Your task to perform on an android device: open sync settings in chrome Image 0: 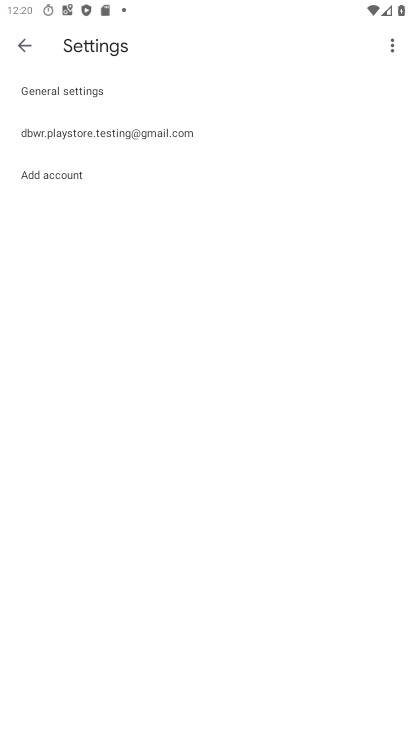
Step 0: press home button
Your task to perform on an android device: open sync settings in chrome Image 1: 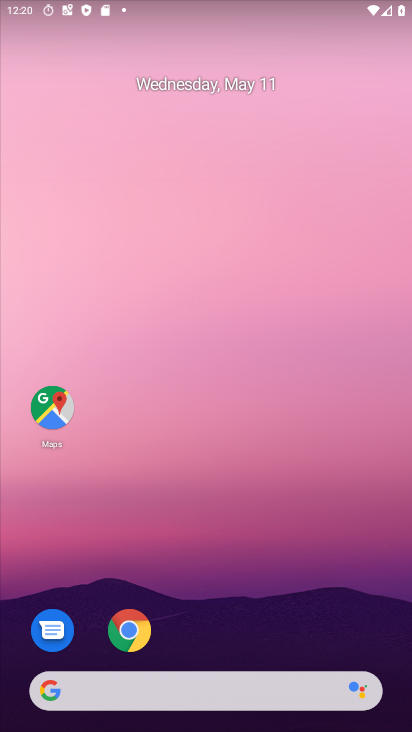
Step 1: click (132, 624)
Your task to perform on an android device: open sync settings in chrome Image 2: 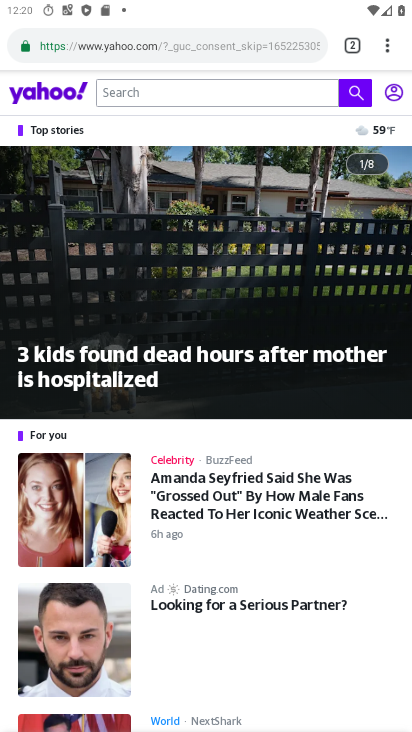
Step 2: drag from (386, 44) to (240, 558)
Your task to perform on an android device: open sync settings in chrome Image 3: 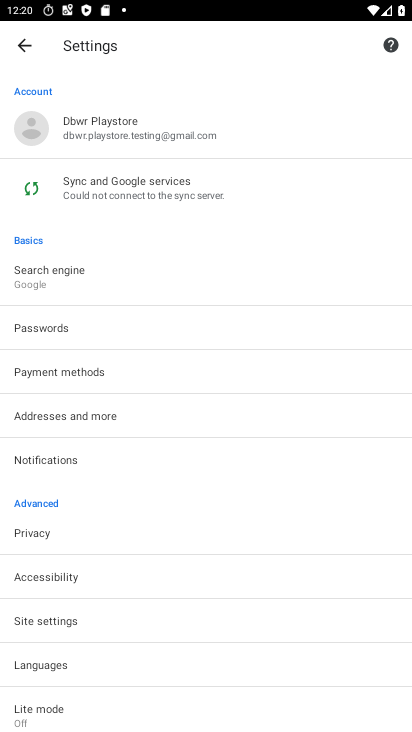
Step 3: click (121, 182)
Your task to perform on an android device: open sync settings in chrome Image 4: 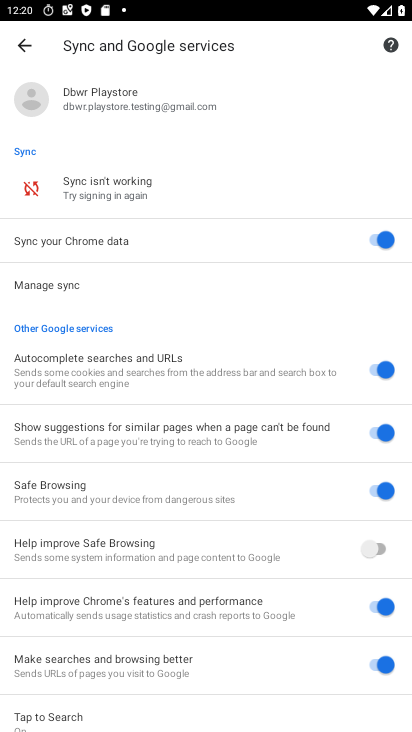
Step 4: click (113, 156)
Your task to perform on an android device: open sync settings in chrome Image 5: 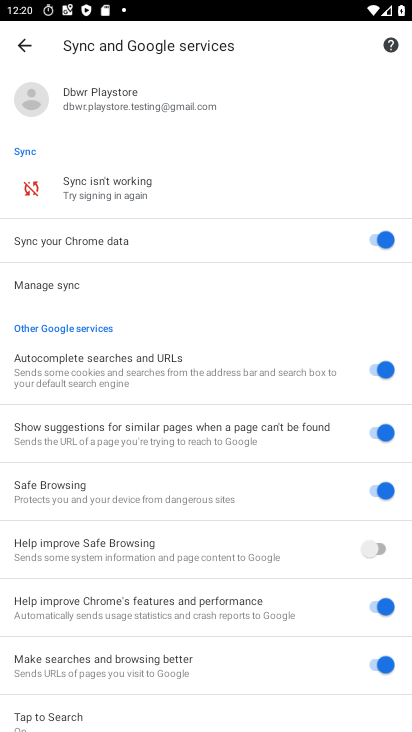
Step 5: click (115, 188)
Your task to perform on an android device: open sync settings in chrome Image 6: 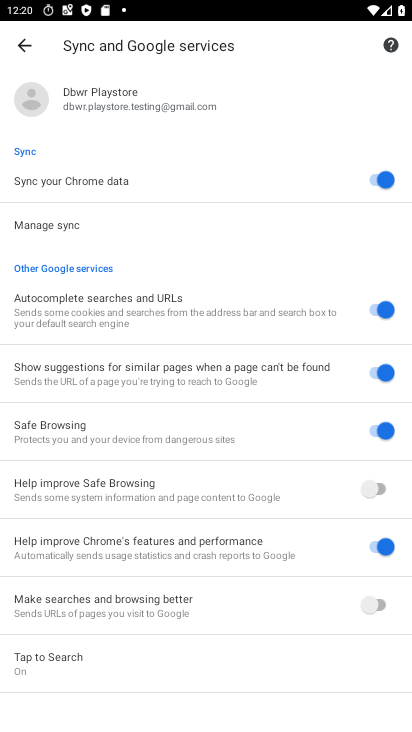
Step 6: task complete